Your task to perform on an android device: turn off notifications settings in the gmail app Image 0: 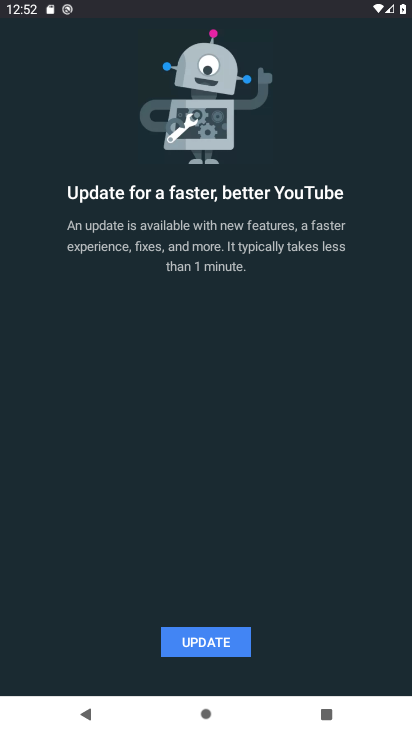
Step 0: press home button
Your task to perform on an android device: turn off notifications settings in the gmail app Image 1: 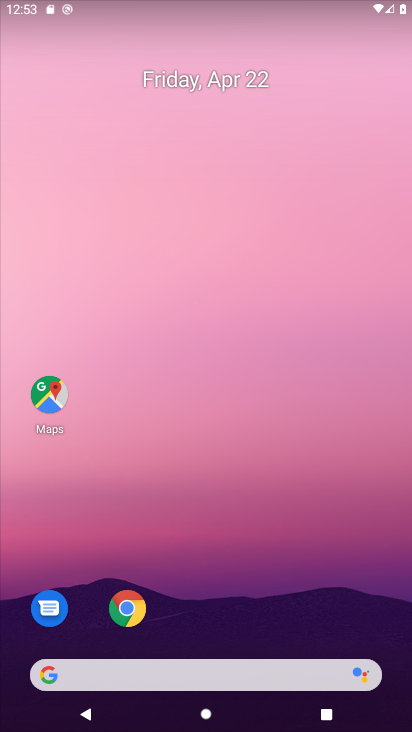
Step 1: drag from (260, 587) to (267, 176)
Your task to perform on an android device: turn off notifications settings in the gmail app Image 2: 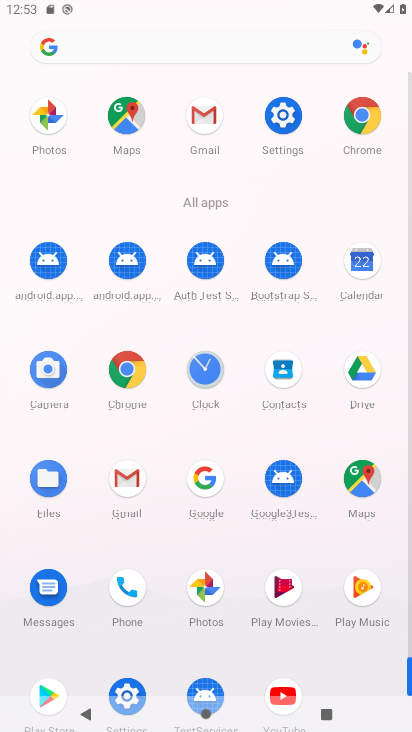
Step 2: click (216, 111)
Your task to perform on an android device: turn off notifications settings in the gmail app Image 3: 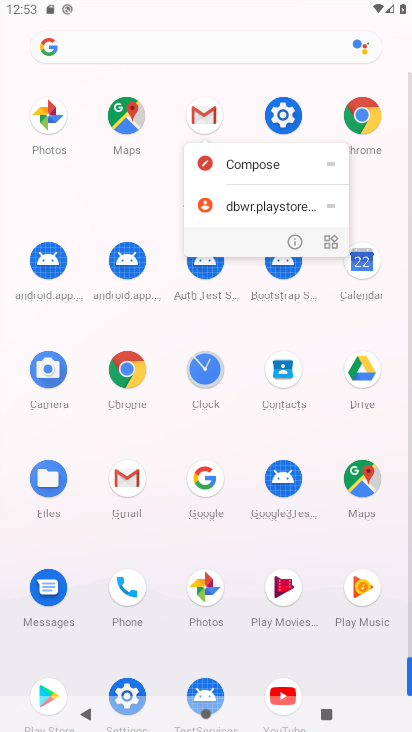
Step 3: click (293, 243)
Your task to perform on an android device: turn off notifications settings in the gmail app Image 4: 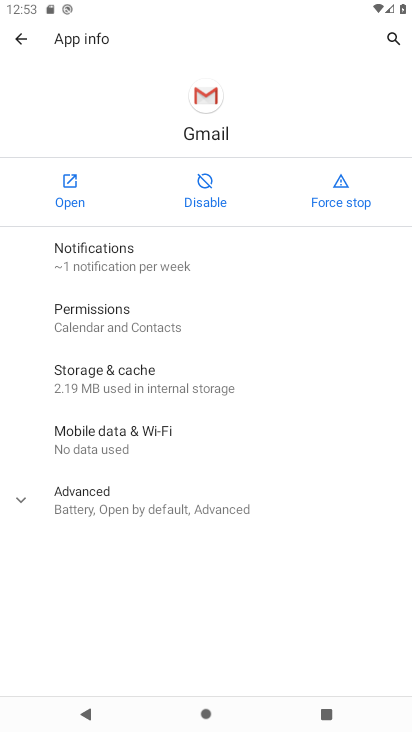
Step 4: click (114, 259)
Your task to perform on an android device: turn off notifications settings in the gmail app Image 5: 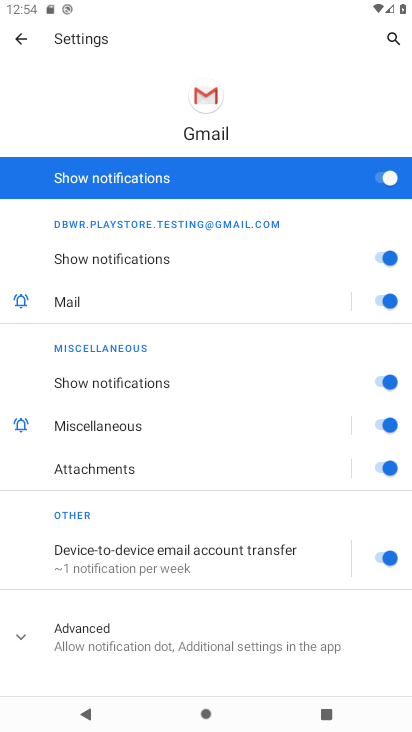
Step 5: click (383, 186)
Your task to perform on an android device: turn off notifications settings in the gmail app Image 6: 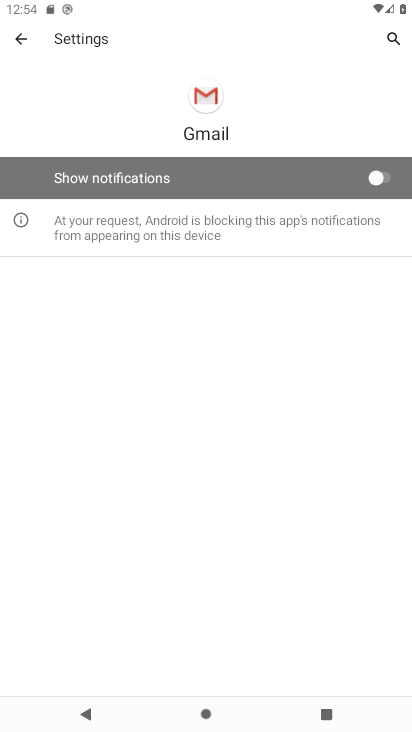
Step 6: task complete